Your task to perform on an android device: open a new tab in the chrome app Image 0: 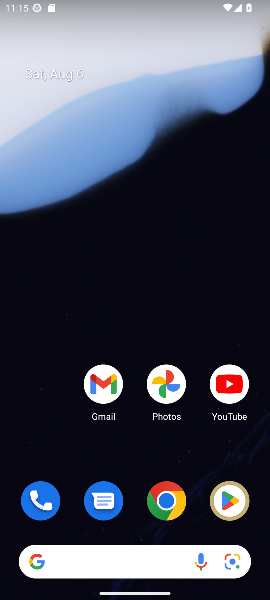
Step 0: click (169, 500)
Your task to perform on an android device: open a new tab in the chrome app Image 1: 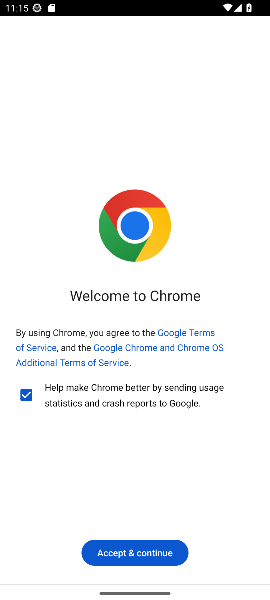
Step 1: click (128, 552)
Your task to perform on an android device: open a new tab in the chrome app Image 2: 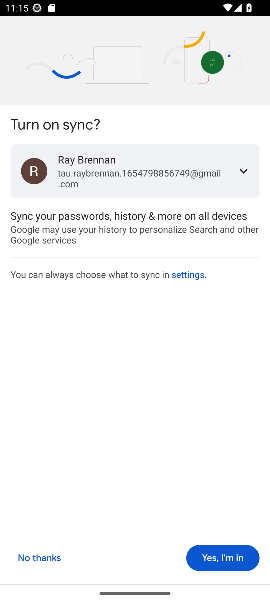
Step 2: click (243, 553)
Your task to perform on an android device: open a new tab in the chrome app Image 3: 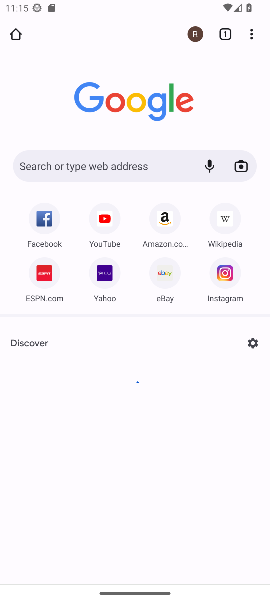
Step 3: click (229, 38)
Your task to perform on an android device: open a new tab in the chrome app Image 4: 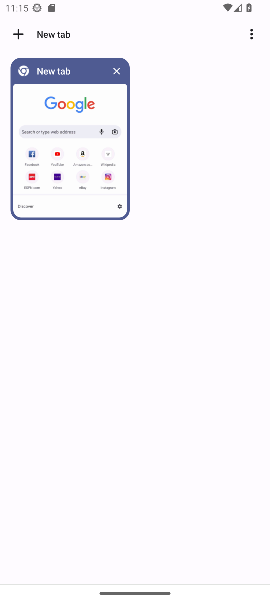
Step 4: click (18, 31)
Your task to perform on an android device: open a new tab in the chrome app Image 5: 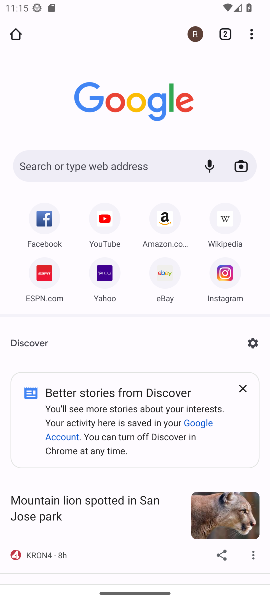
Step 5: task complete